Your task to perform on an android device: turn pop-ups off in chrome Image 0: 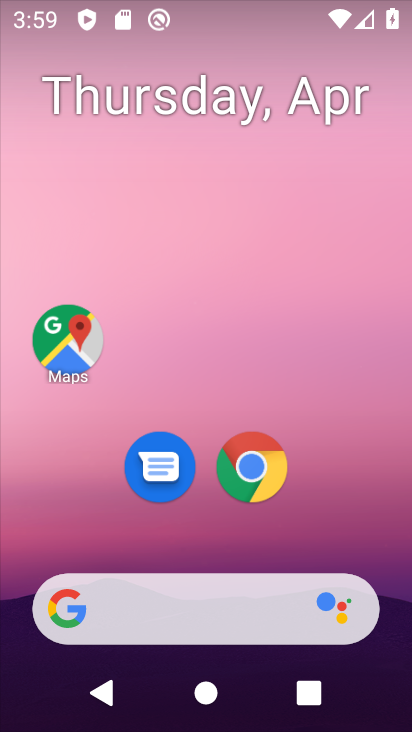
Step 0: click (267, 478)
Your task to perform on an android device: turn pop-ups off in chrome Image 1: 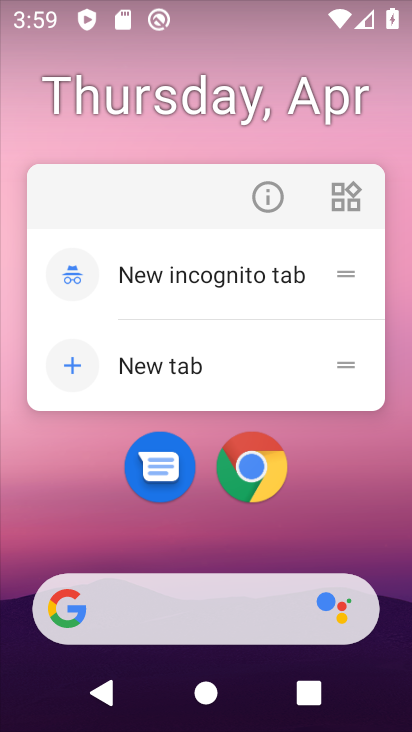
Step 1: click (276, 199)
Your task to perform on an android device: turn pop-ups off in chrome Image 2: 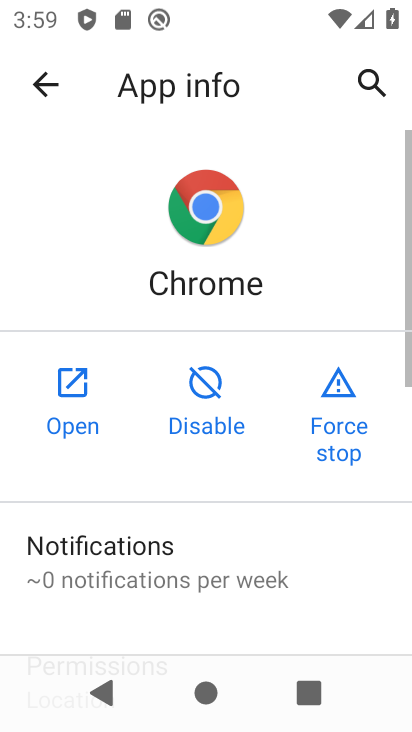
Step 2: drag from (241, 526) to (300, 117)
Your task to perform on an android device: turn pop-ups off in chrome Image 3: 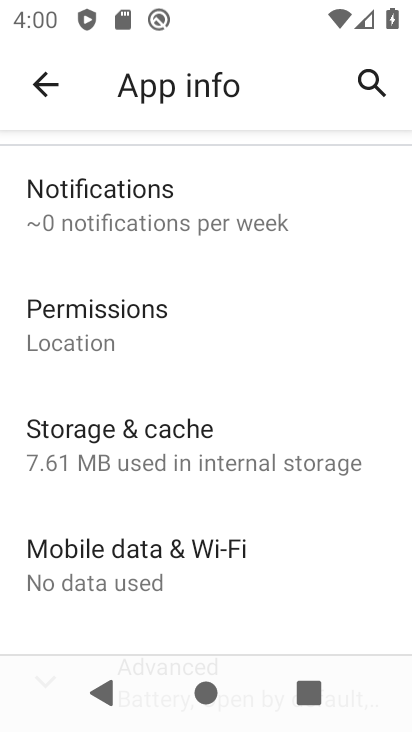
Step 3: drag from (258, 220) to (244, 664)
Your task to perform on an android device: turn pop-ups off in chrome Image 4: 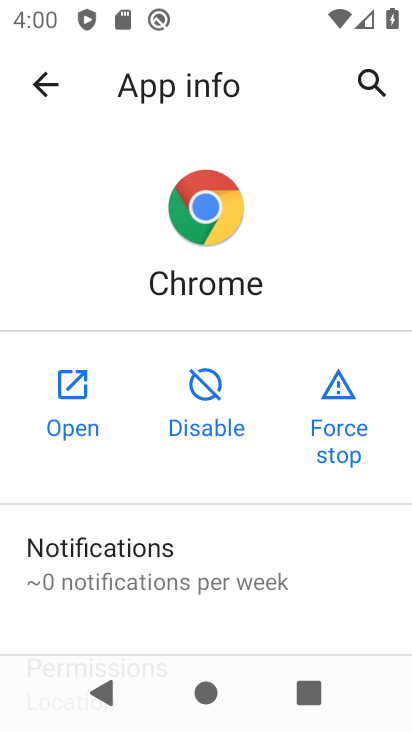
Step 4: click (81, 414)
Your task to perform on an android device: turn pop-ups off in chrome Image 5: 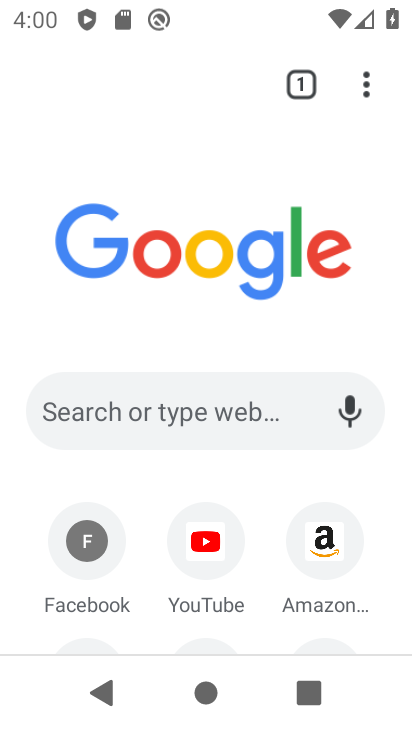
Step 5: click (367, 103)
Your task to perform on an android device: turn pop-ups off in chrome Image 6: 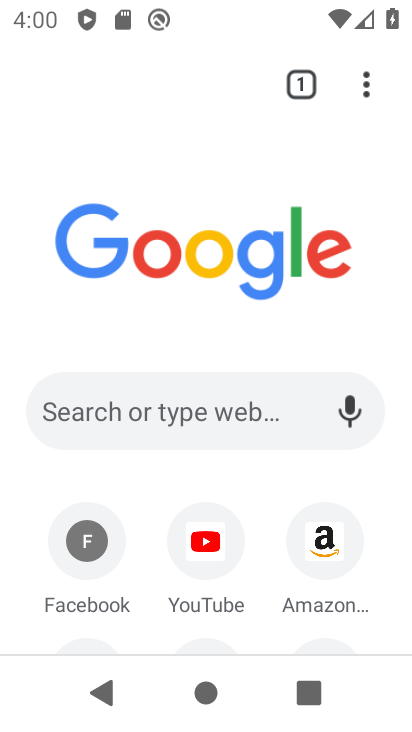
Step 6: click (368, 73)
Your task to perform on an android device: turn pop-ups off in chrome Image 7: 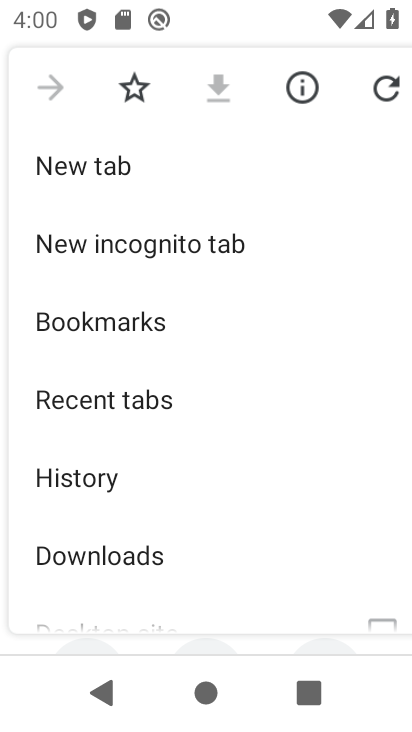
Step 7: drag from (121, 550) to (155, 133)
Your task to perform on an android device: turn pop-ups off in chrome Image 8: 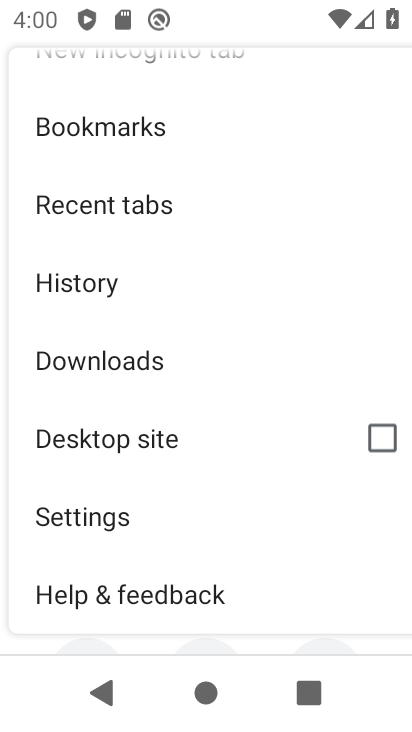
Step 8: click (112, 522)
Your task to perform on an android device: turn pop-ups off in chrome Image 9: 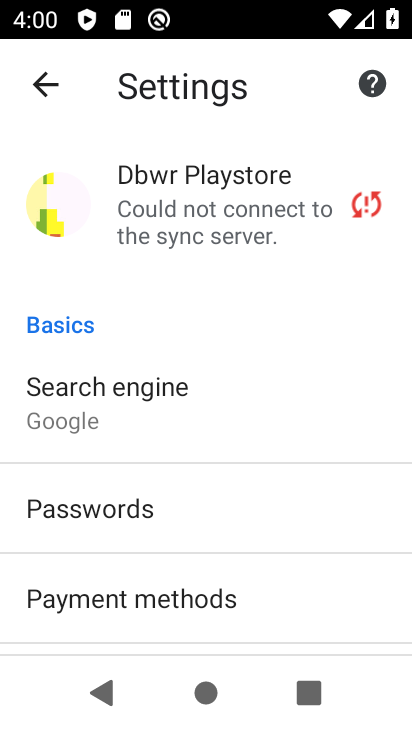
Step 9: drag from (113, 531) to (207, 216)
Your task to perform on an android device: turn pop-ups off in chrome Image 10: 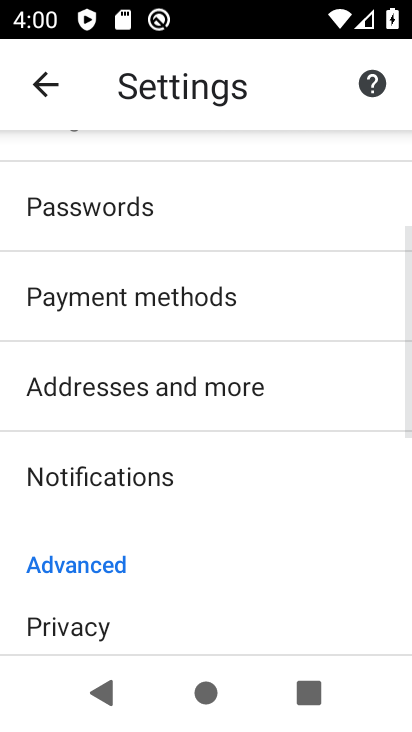
Step 10: drag from (170, 562) to (226, 226)
Your task to perform on an android device: turn pop-ups off in chrome Image 11: 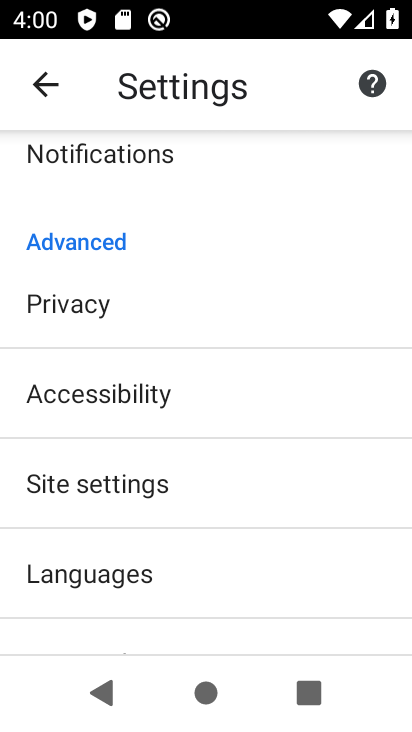
Step 11: click (108, 474)
Your task to perform on an android device: turn pop-ups off in chrome Image 12: 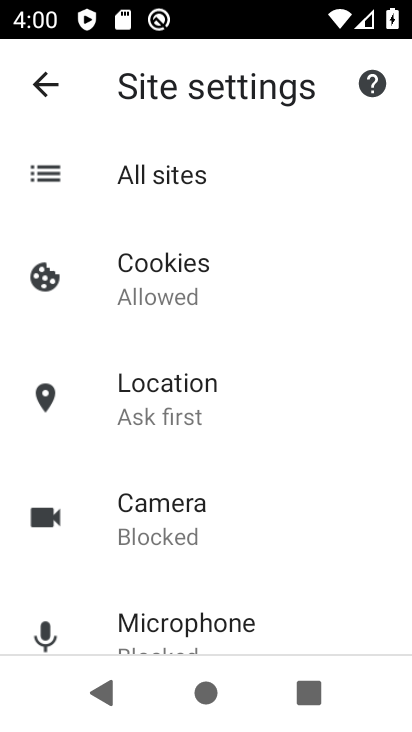
Step 12: drag from (157, 529) to (220, 197)
Your task to perform on an android device: turn pop-ups off in chrome Image 13: 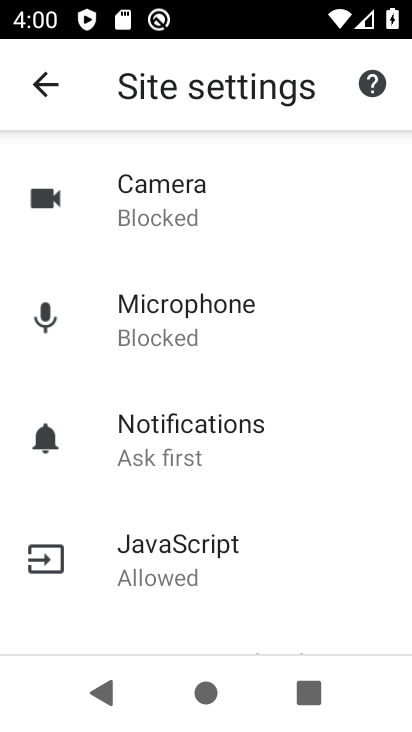
Step 13: drag from (157, 542) to (220, 238)
Your task to perform on an android device: turn pop-ups off in chrome Image 14: 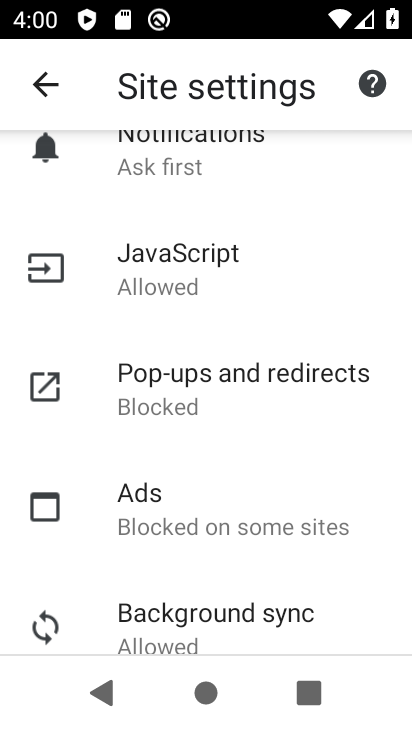
Step 14: click (187, 396)
Your task to perform on an android device: turn pop-ups off in chrome Image 15: 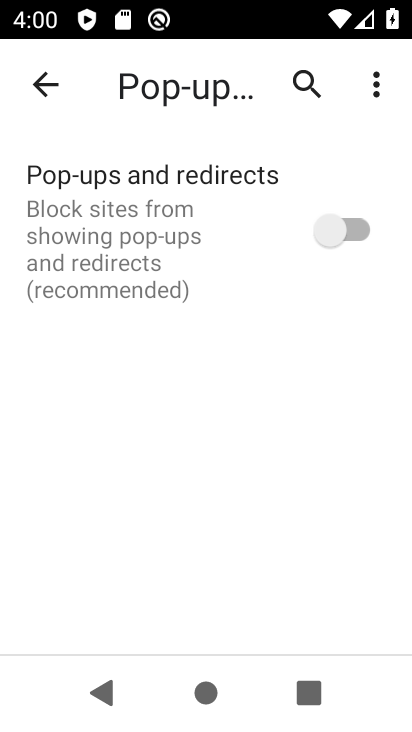
Step 15: task complete